Your task to perform on an android device: clear history in the chrome app Image 0: 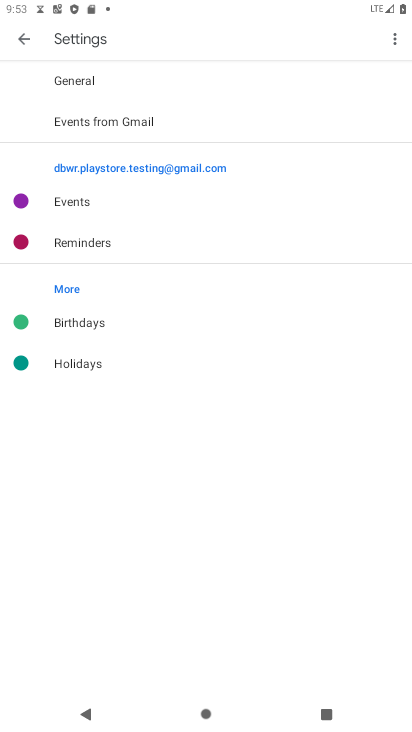
Step 0: press home button
Your task to perform on an android device: clear history in the chrome app Image 1: 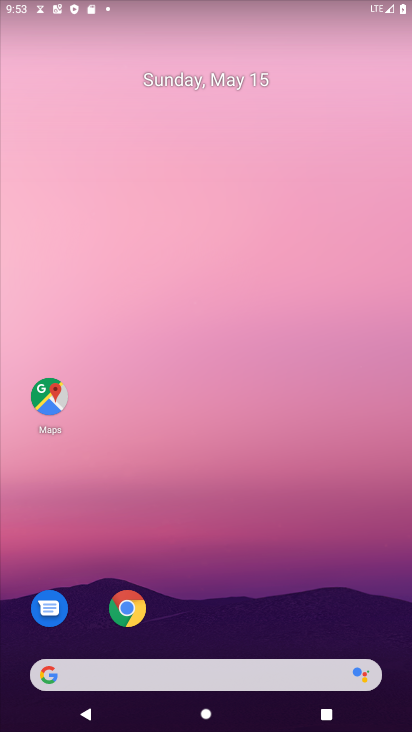
Step 1: drag from (307, 591) to (295, 3)
Your task to perform on an android device: clear history in the chrome app Image 2: 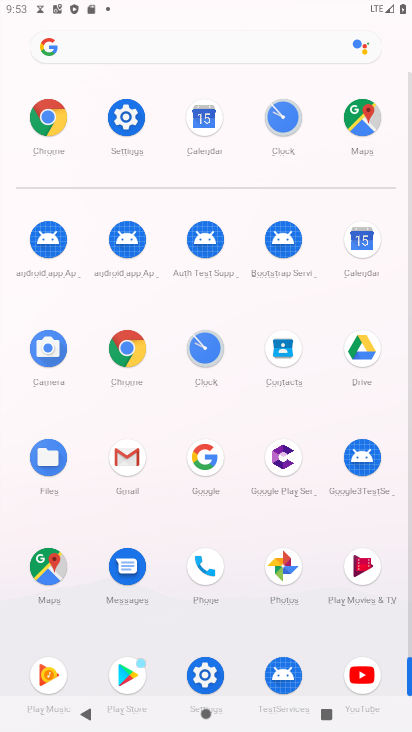
Step 2: click (45, 128)
Your task to perform on an android device: clear history in the chrome app Image 3: 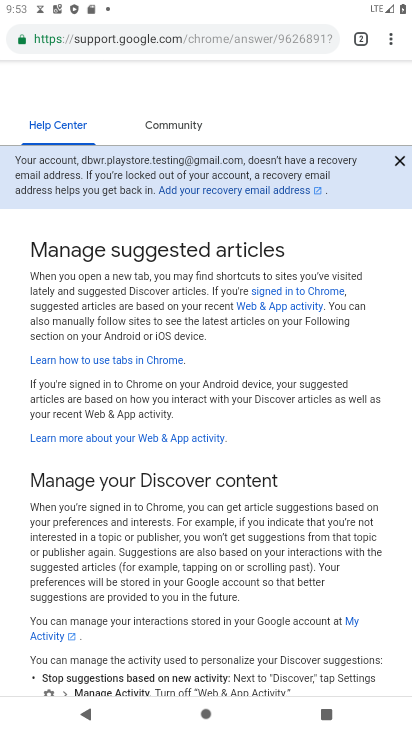
Step 3: click (394, 34)
Your task to perform on an android device: clear history in the chrome app Image 4: 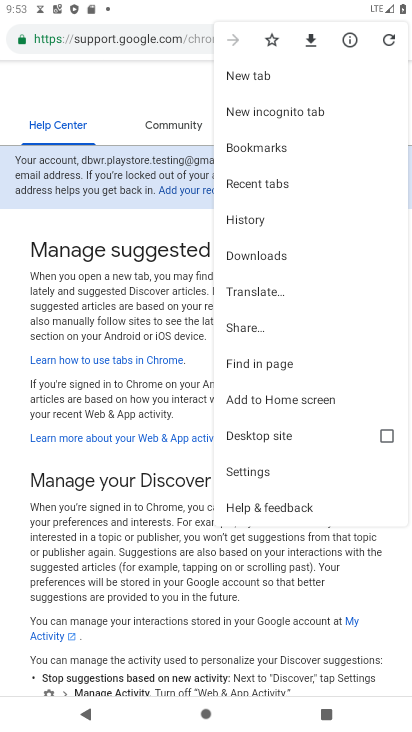
Step 4: click (242, 222)
Your task to perform on an android device: clear history in the chrome app Image 5: 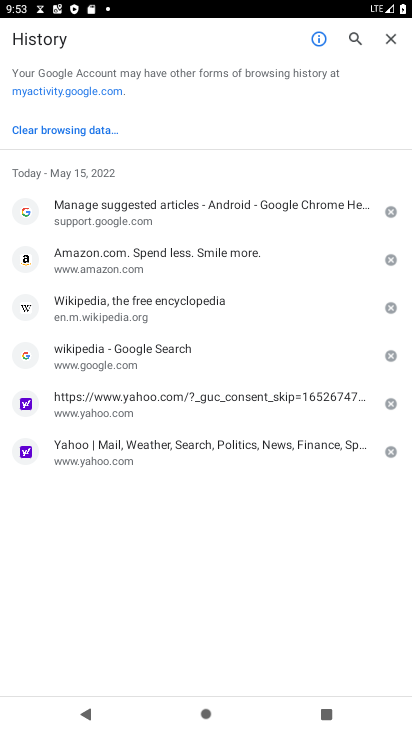
Step 5: click (91, 137)
Your task to perform on an android device: clear history in the chrome app Image 6: 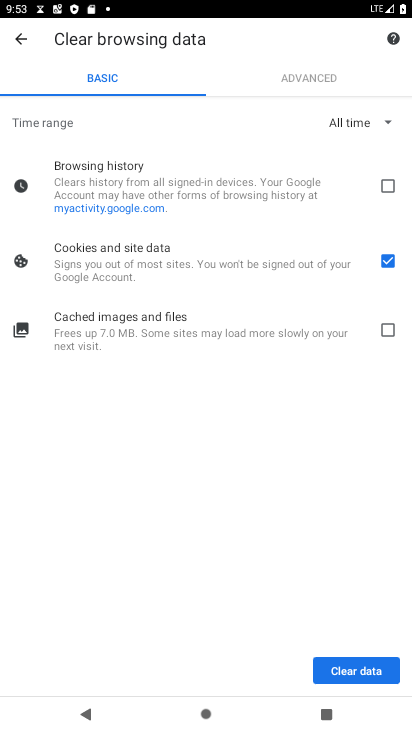
Step 6: click (393, 185)
Your task to perform on an android device: clear history in the chrome app Image 7: 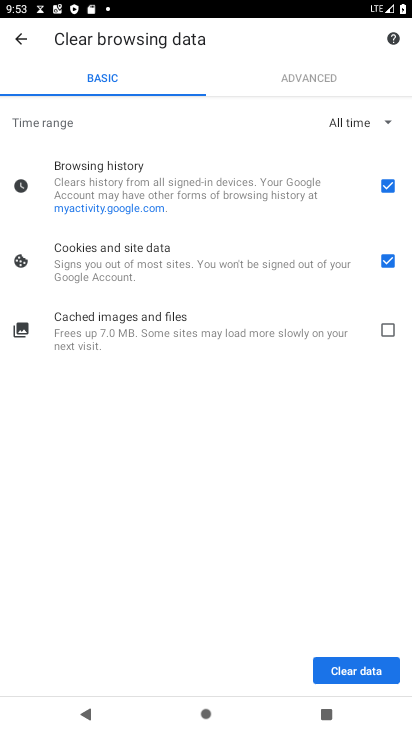
Step 7: click (390, 256)
Your task to perform on an android device: clear history in the chrome app Image 8: 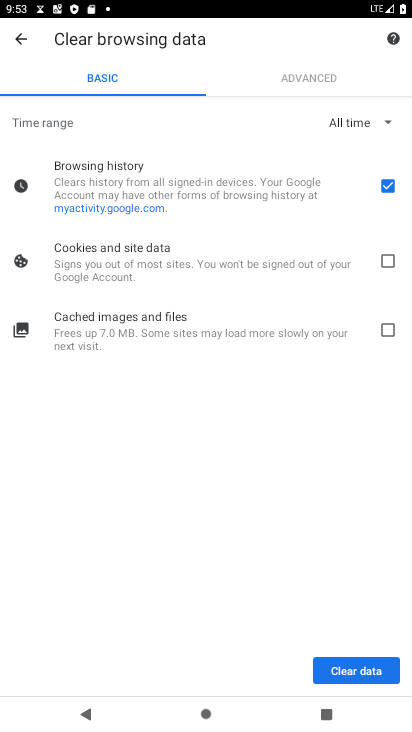
Step 8: click (350, 669)
Your task to perform on an android device: clear history in the chrome app Image 9: 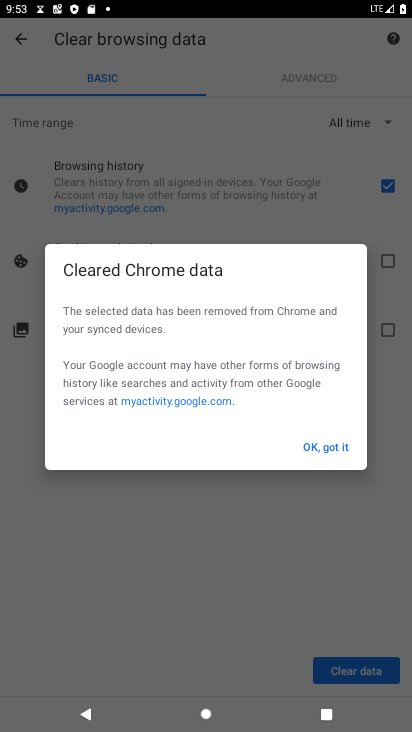
Step 9: click (343, 450)
Your task to perform on an android device: clear history in the chrome app Image 10: 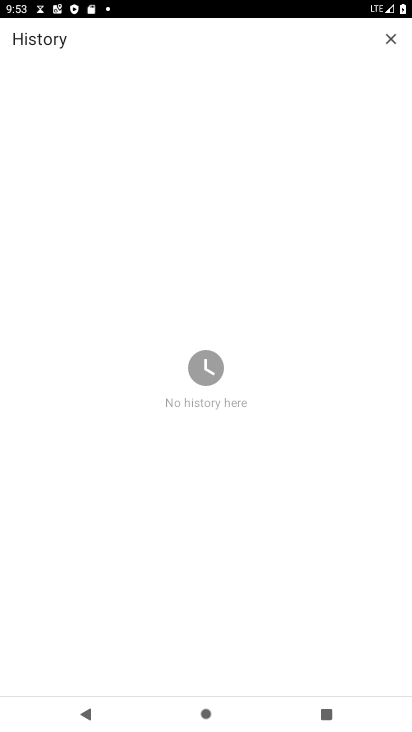
Step 10: task complete